Your task to perform on an android device: change timer sound Image 0: 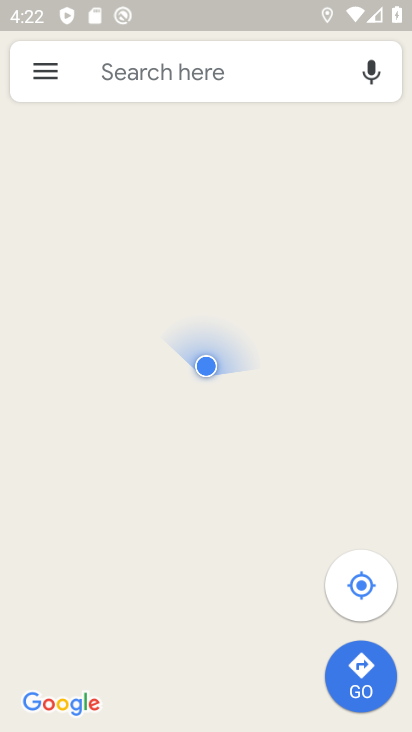
Step 0: press home button
Your task to perform on an android device: change timer sound Image 1: 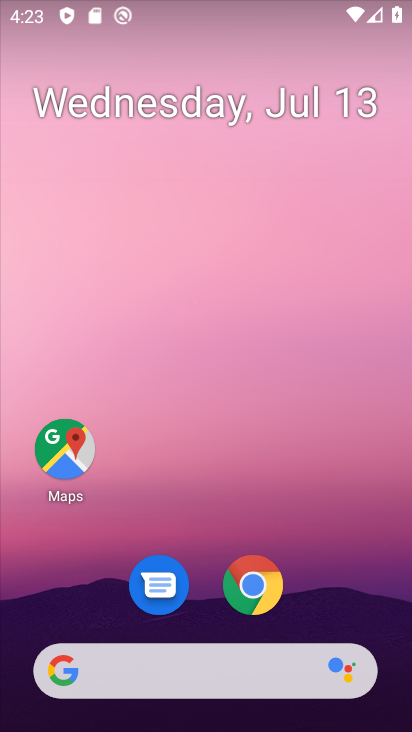
Step 1: drag from (321, 556) to (344, 1)
Your task to perform on an android device: change timer sound Image 2: 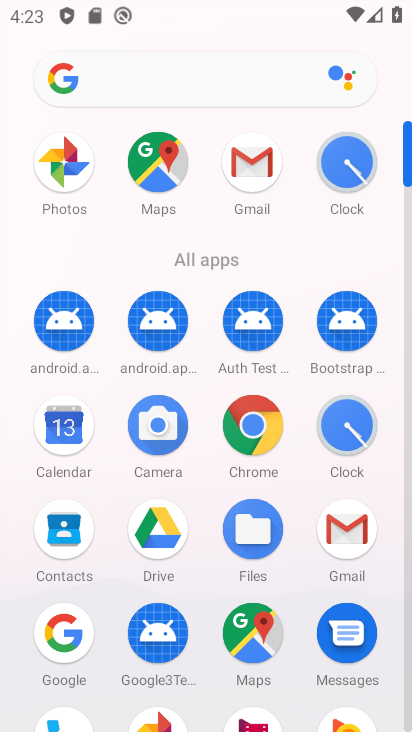
Step 2: click (353, 163)
Your task to perform on an android device: change timer sound Image 3: 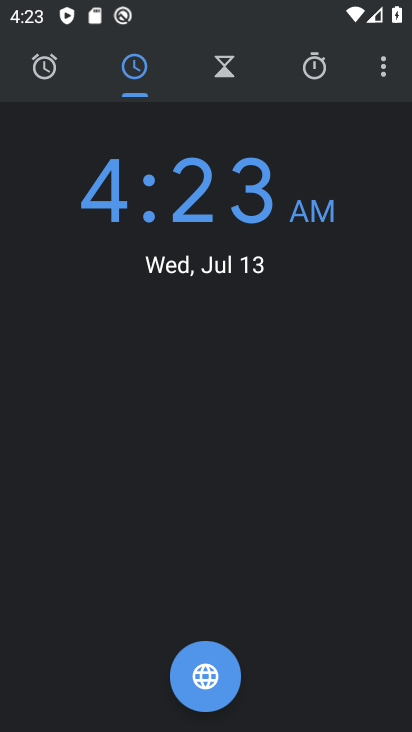
Step 3: click (229, 68)
Your task to perform on an android device: change timer sound Image 4: 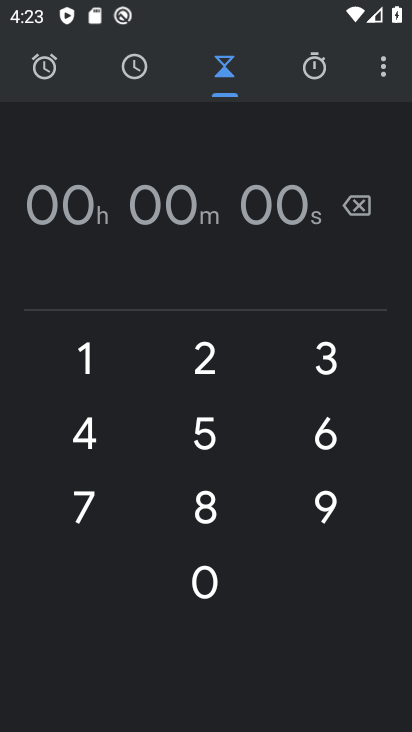
Step 4: click (385, 74)
Your task to perform on an android device: change timer sound Image 5: 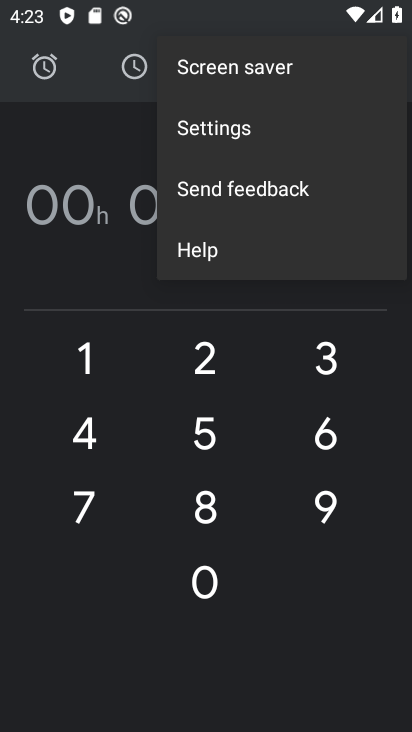
Step 5: click (300, 134)
Your task to perform on an android device: change timer sound Image 6: 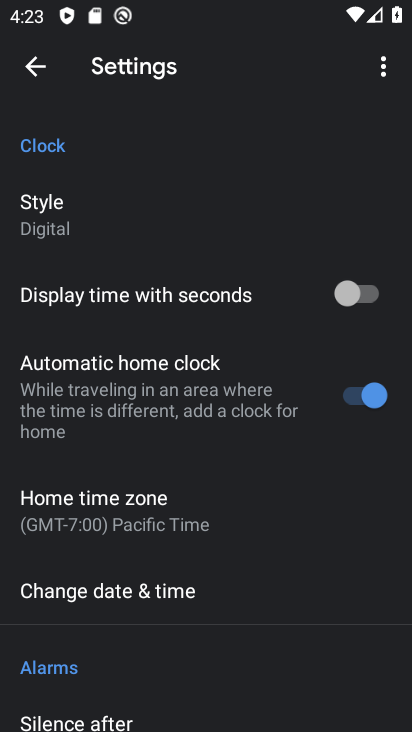
Step 6: drag from (235, 560) to (215, 201)
Your task to perform on an android device: change timer sound Image 7: 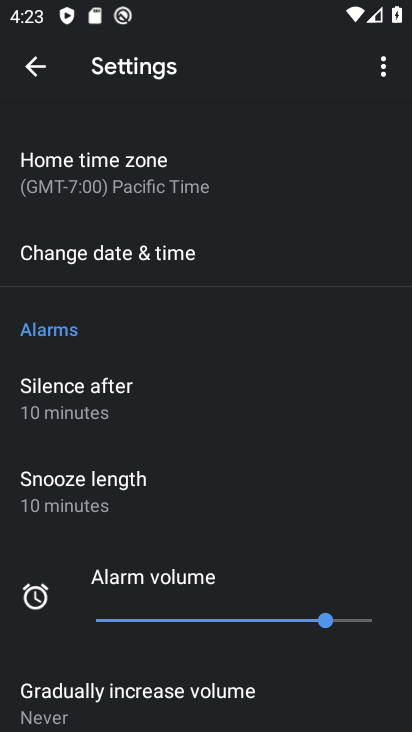
Step 7: drag from (177, 484) to (219, 133)
Your task to perform on an android device: change timer sound Image 8: 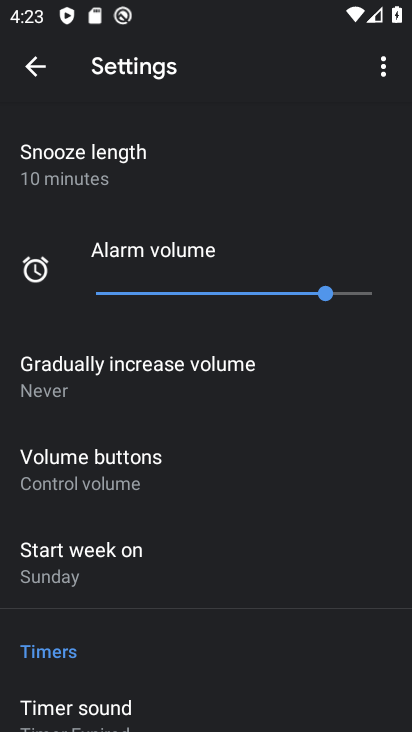
Step 8: drag from (194, 459) to (217, 151)
Your task to perform on an android device: change timer sound Image 9: 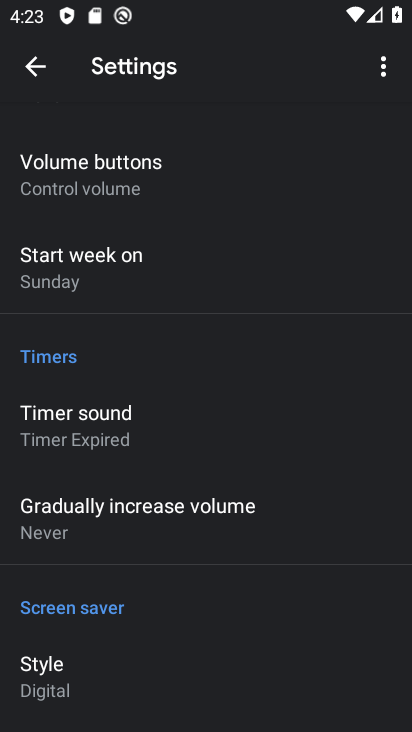
Step 9: click (125, 429)
Your task to perform on an android device: change timer sound Image 10: 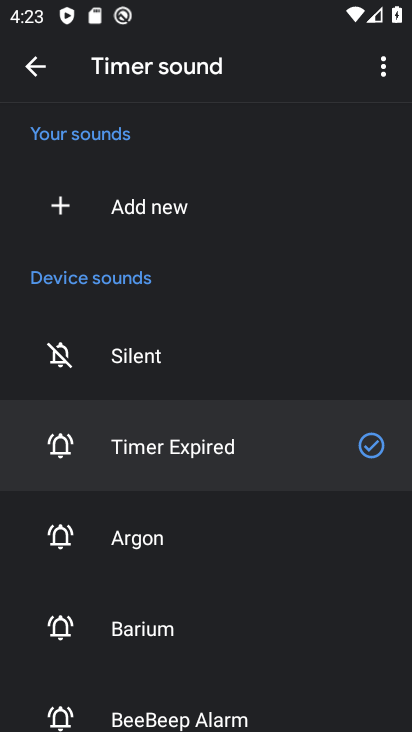
Step 10: click (120, 535)
Your task to perform on an android device: change timer sound Image 11: 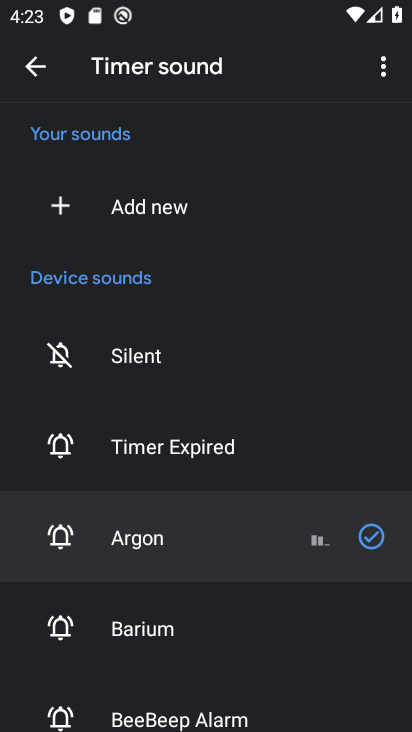
Step 11: task complete